Your task to perform on an android device: Open the calendar app, open the side menu, and click the "Day" option Image 0: 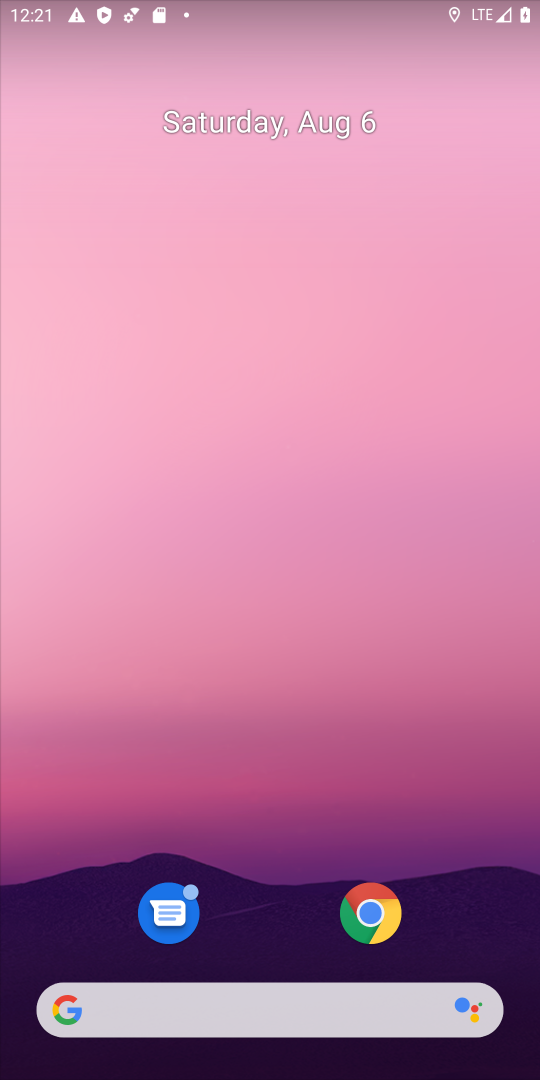
Step 0: press home button
Your task to perform on an android device: Open the calendar app, open the side menu, and click the "Day" option Image 1: 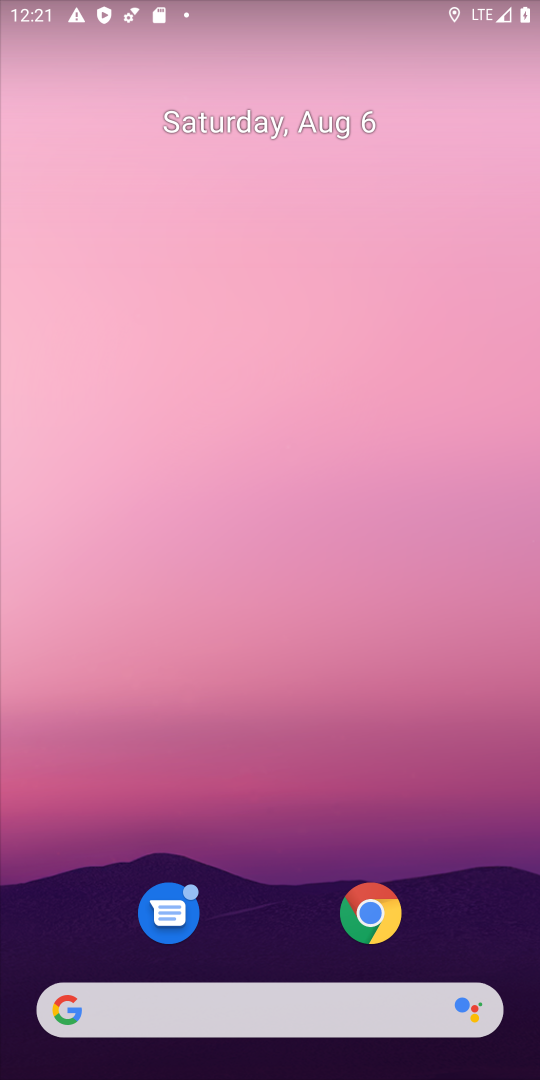
Step 1: drag from (481, 778) to (474, 265)
Your task to perform on an android device: Open the calendar app, open the side menu, and click the "Day" option Image 2: 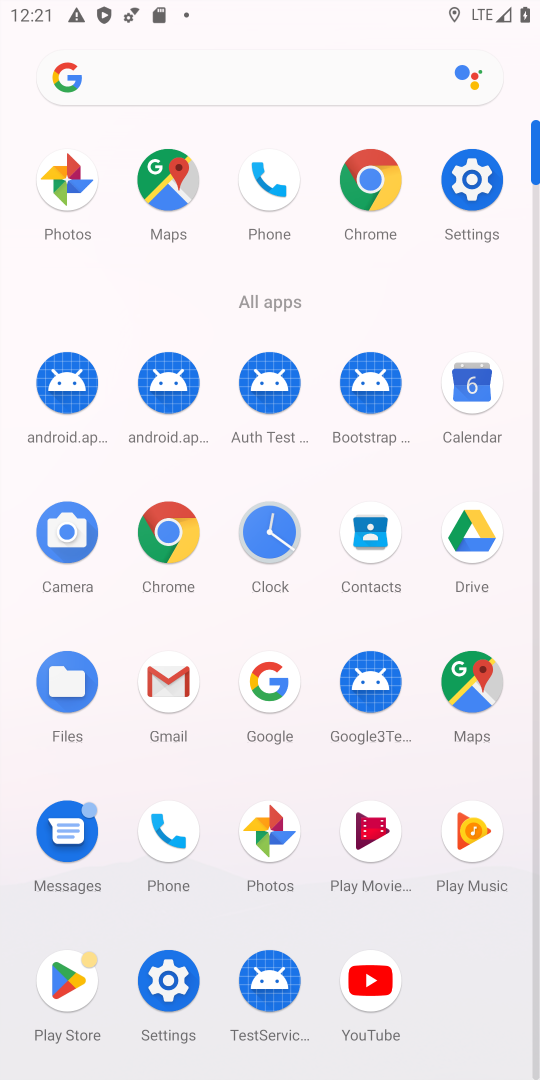
Step 2: drag from (396, 392) to (406, 148)
Your task to perform on an android device: Open the calendar app, open the side menu, and click the "Day" option Image 3: 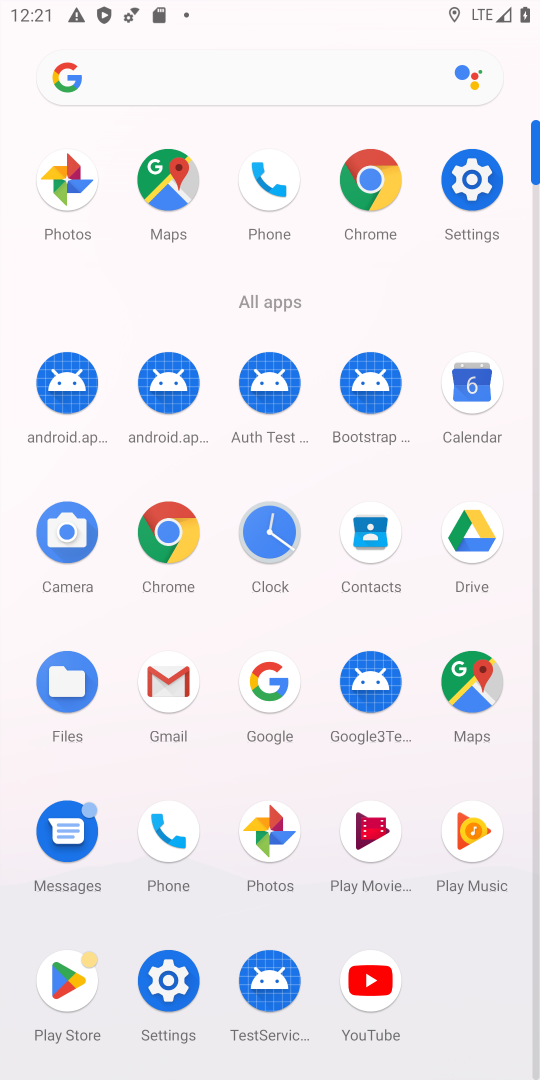
Step 3: click (465, 389)
Your task to perform on an android device: Open the calendar app, open the side menu, and click the "Day" option Image 4: 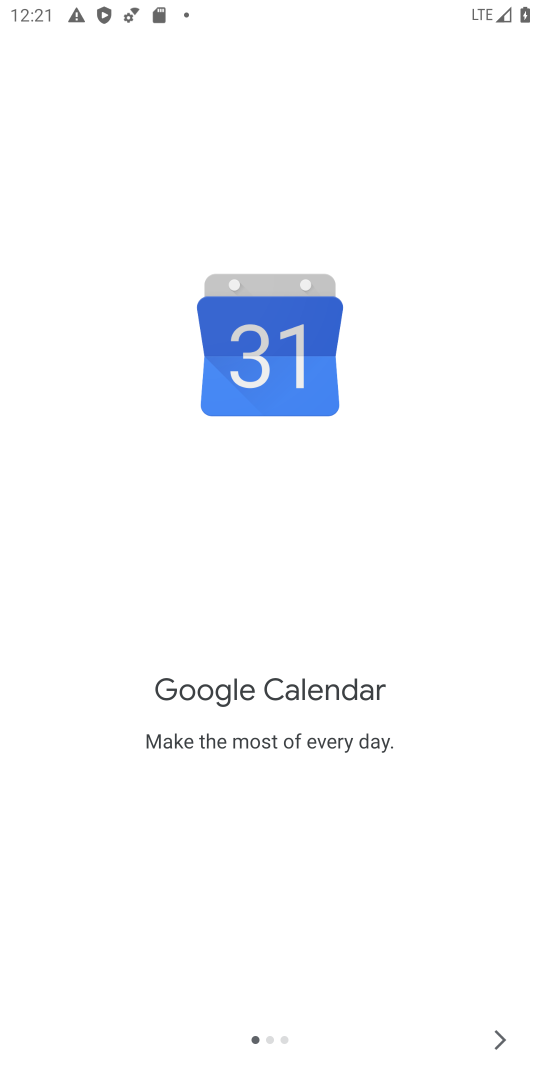
Step 4: click (488, 1041)
Your task to perform on an android device: Open the calendar app, open the side menu, and click the "Day" option Image 5: 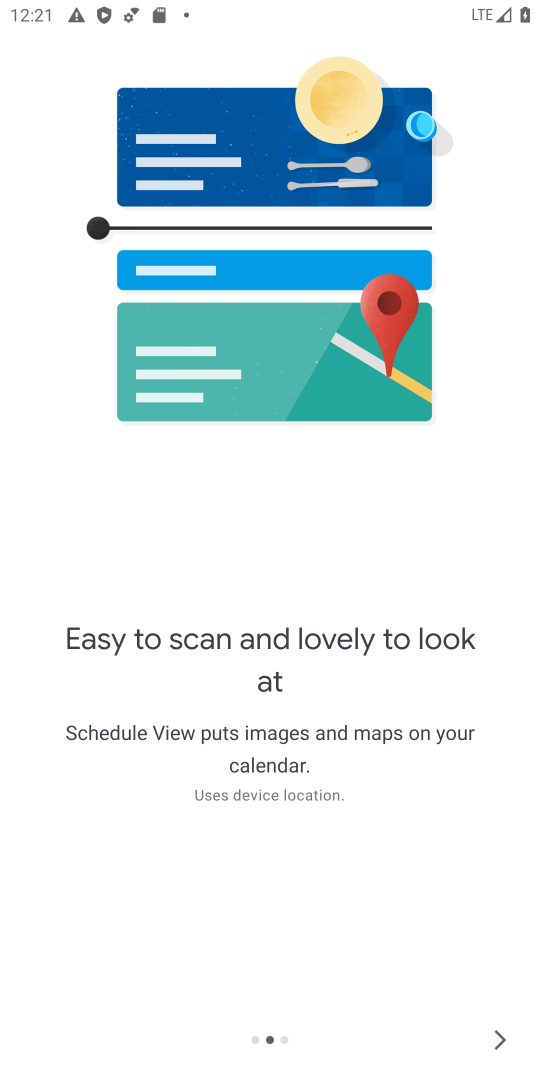
Step 5: click (504, 1035)
Your task to perform on an android device: Open the calendar app, open the side menu, and click the "Day" option Image 6: 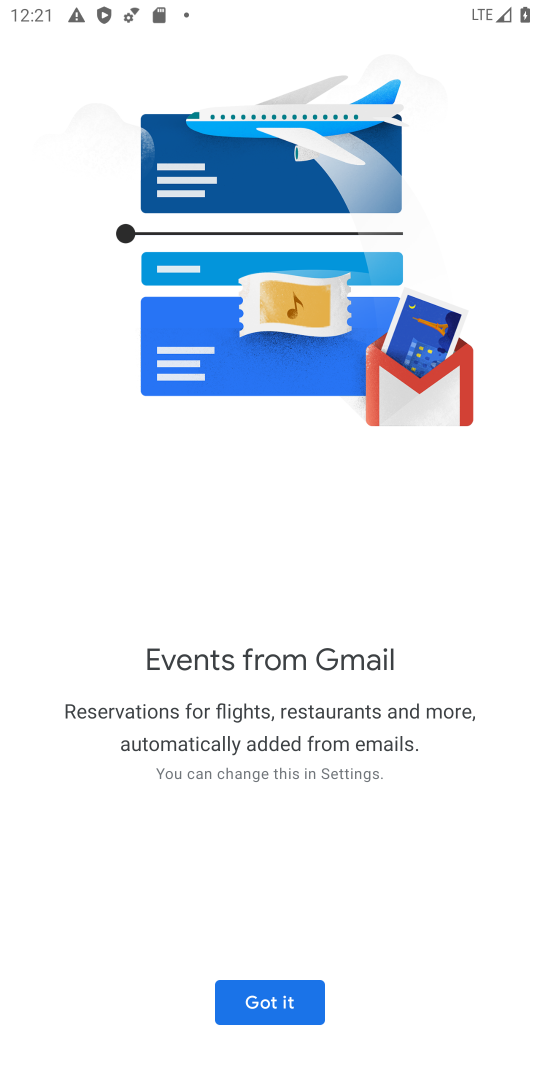
Step 6: click (287, 1002)
Your task to perform on an android device: Open the calendar app, open the side menu, and click the "Day" option Image 7: 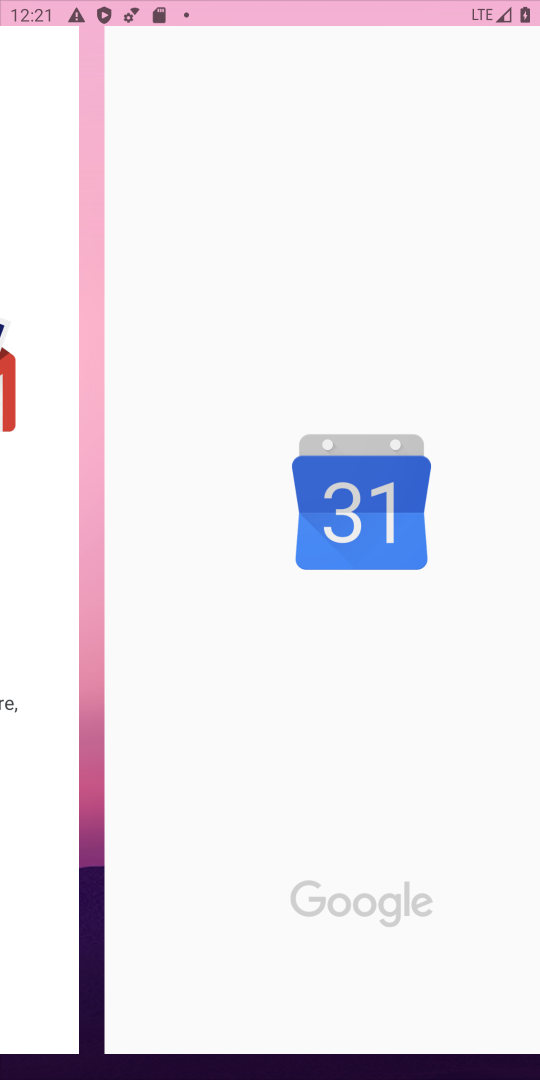
Step 7: click (287, 1002)
Your task to perform on an android device: Open the calendar app, open the side menu, and click the "Day" option Image 8: 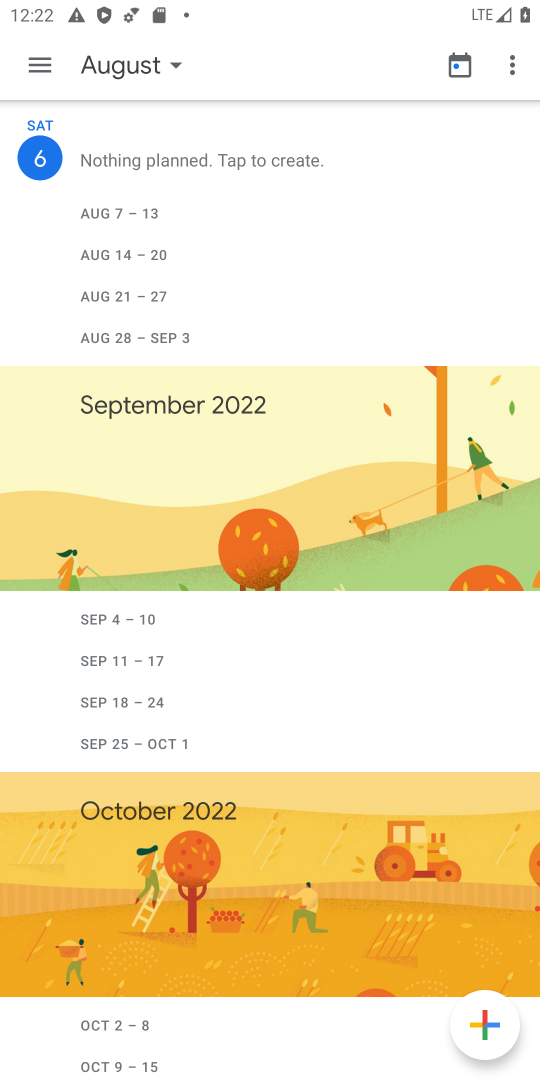
Step 8: click (44, 61)
Your task to perform on an android device: Open the calendar app, open the side menu, and click the "Day" option Image 9: 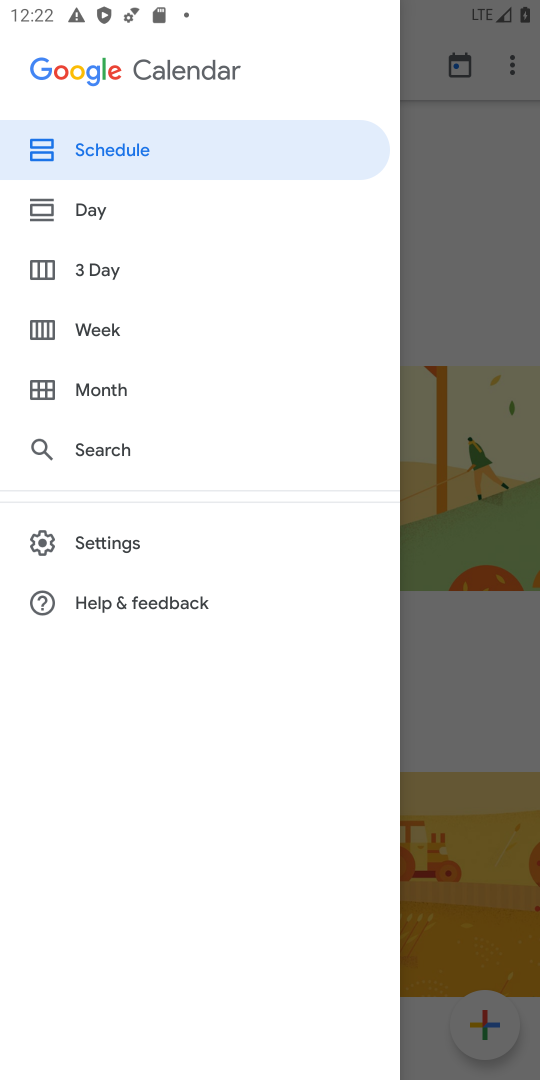
Step 9: click (90, 208)
Your task to perform on an android device: Open the calendar app, open the side menu, and click the "Day" option Image 10: 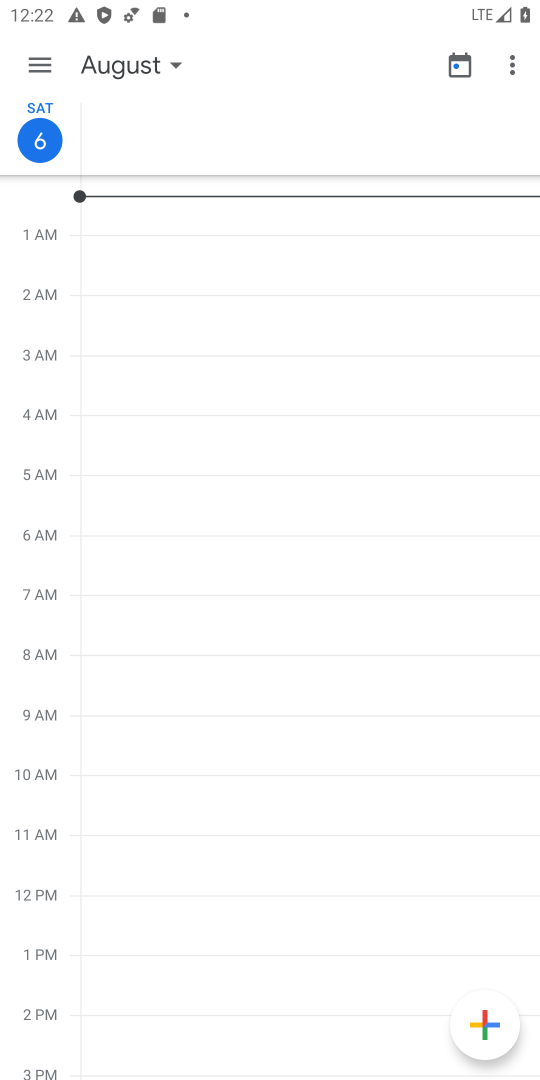
Step 10: task complete